Your task to perform on an android device: change the clock display to analog Image 0: 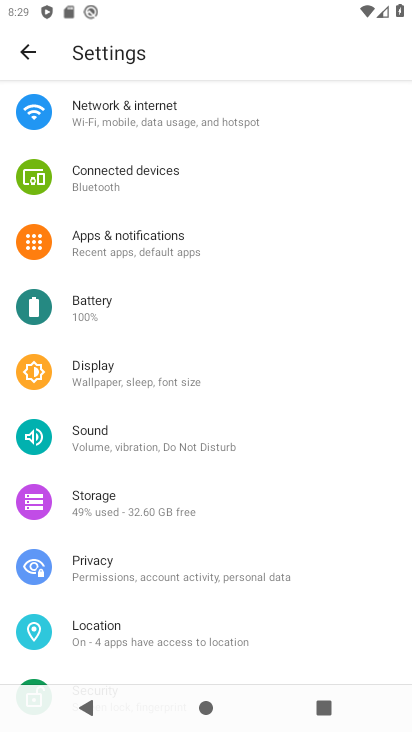
Step 0: press home button
Your task to perform on an android device: change the clock display to analog Image 1: 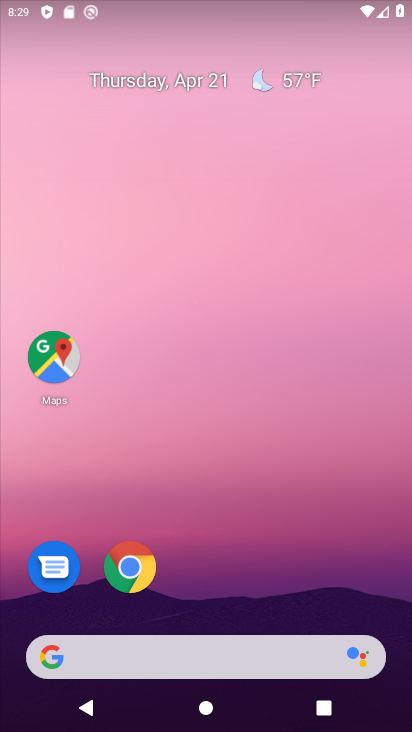
Step 1: drag from (212, 618) to (184, 66)
Your task to perform on an android device: change the clock display to analog Image 2: 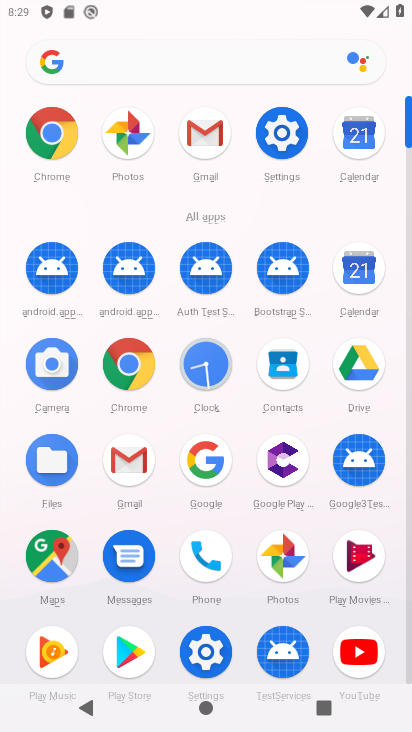
Step 2: click (203, 372)
Your task to perform on an android device: change the clock display to analog Image 3: 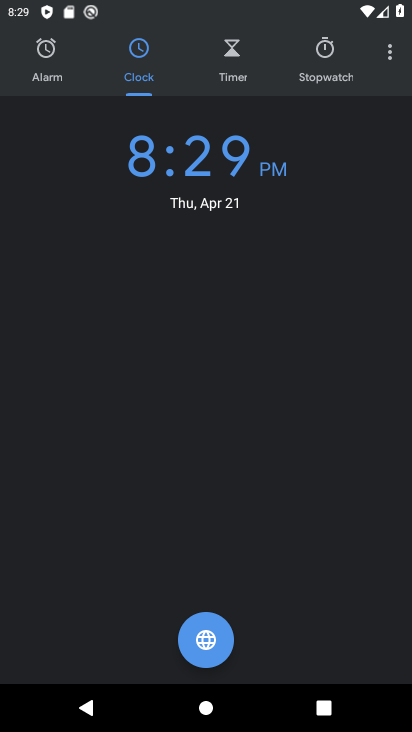
Step 3: click (390, 57)
Your task to perform on an android device: change the clock display to analog Image 4: 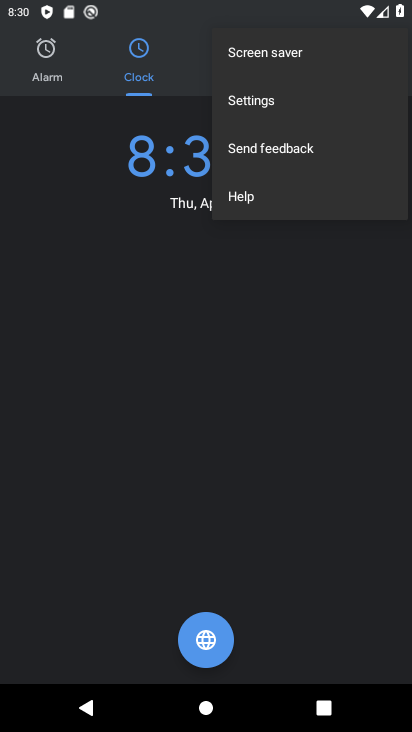
Step 4: click (258, 100)
Your task to perform on an android device: change the clock display to analog Image 5: 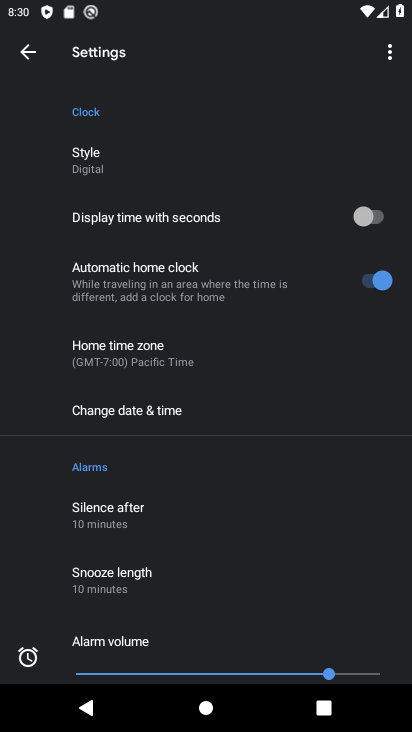
Step 5: click (92, 175)
Your task to perform on an android device: change the clock display to analog Image 6: 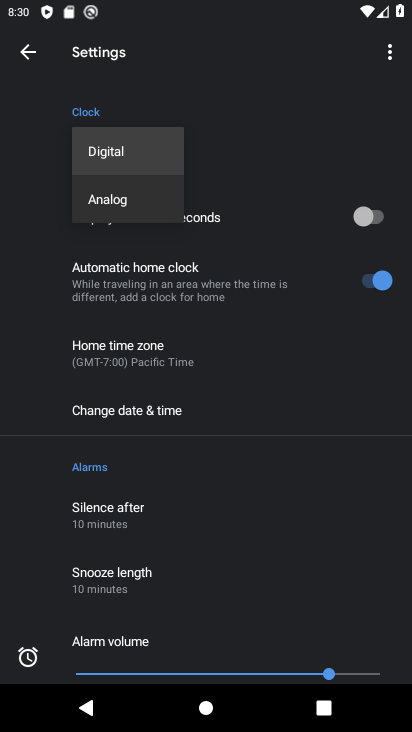
Step 6: click (122, 200)
Your task to perform on an android device: change the clock display to analog Image 7: 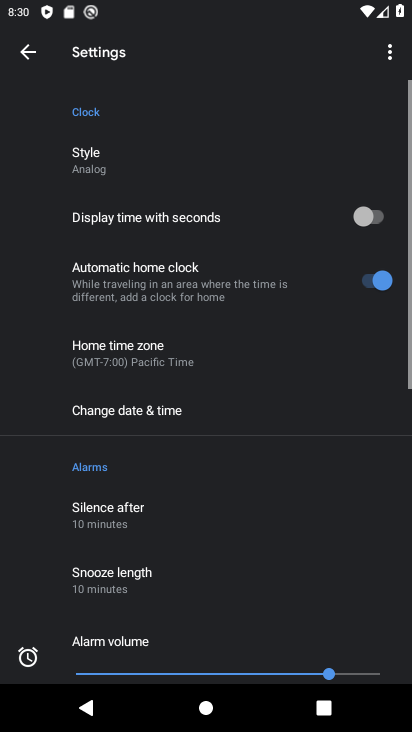
Step 7: task complete